Your task to perform on an android device: Open sound settings Image 0: 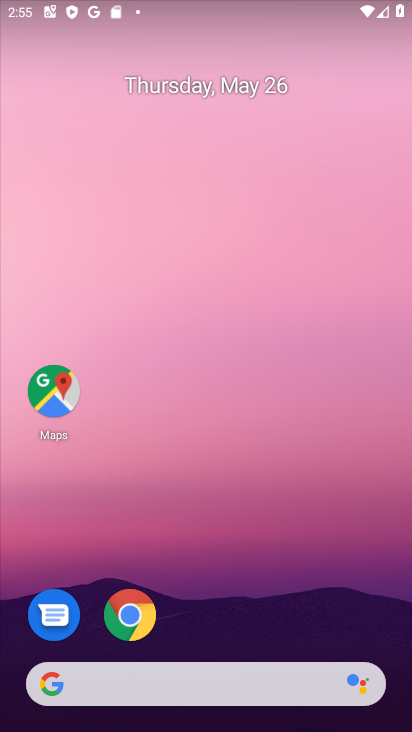
Step 0: drag from (221, 643) to (278, 24)
Your task to perform on an android device: Open sound settings Image 1: 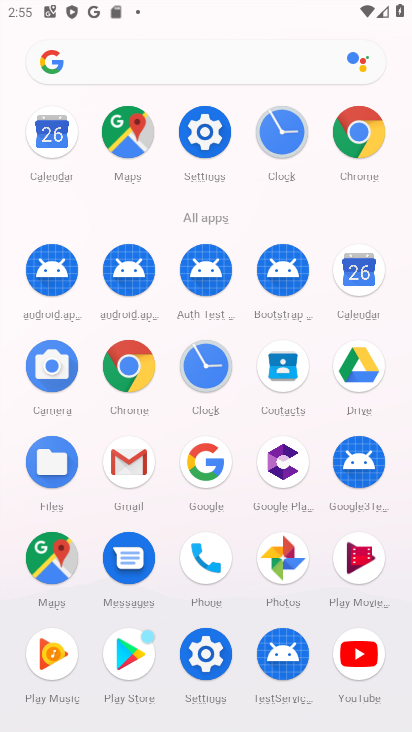
Step 1: click (206, 141)
Your task to perform on an android device: Open sound settings Image 2: 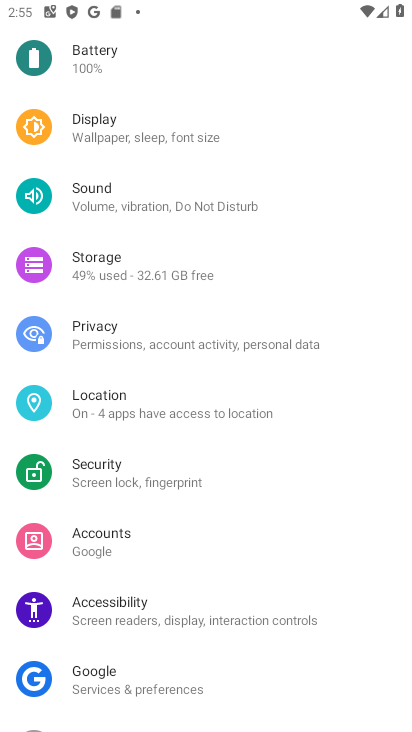
Step 2: click (184, 205)
Your task to perform on an android device: Open sound settings Image 3: 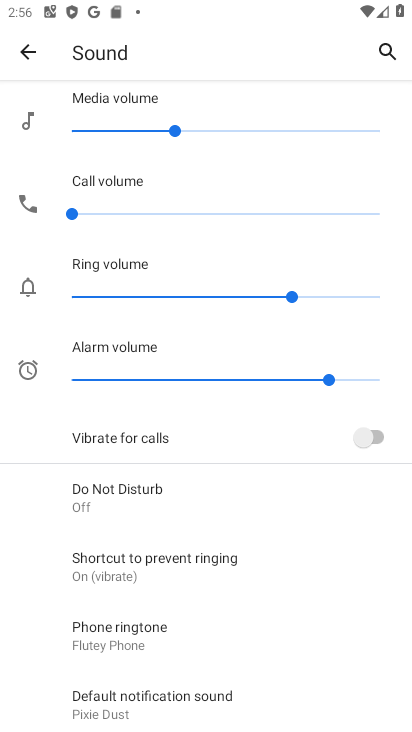
Step 3: task complete